Your task to perform on an android device: Search for the best rated Bluetooth earbuds on Ali express Image 0: 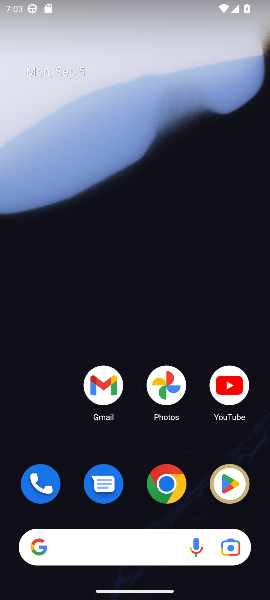
Step 0: drag from (61, 520) to (173, 94)
Your task to perform on an android device: Search for the best rated Bluetooth earbuds on Ali express Image 1: 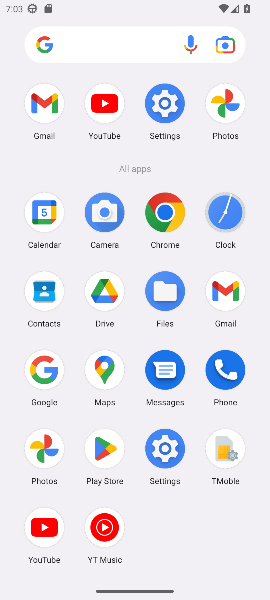
Step 1: click (164, 200)
Your task to perform on an android device: Search for the best rated Bluetooth earbuds on Ali express Image 2: 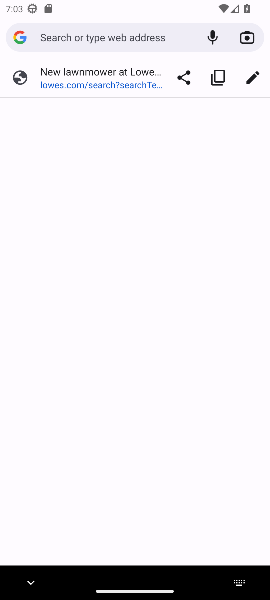
Step 2: type " Ali express"
Your task to perform on an android device: Search for the best rated Bluetooth earbuds on Ali express Image 3: 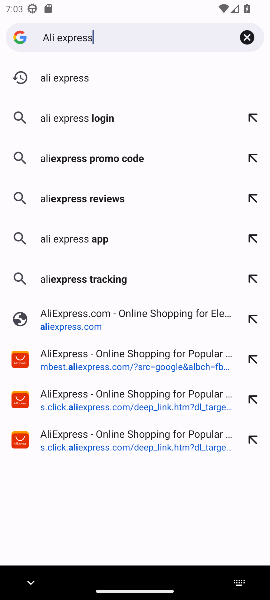
Step 3: press enter
Your task to perform on an android device: Search for the best rated Bluetooth earbuds on Ali express Image 4: 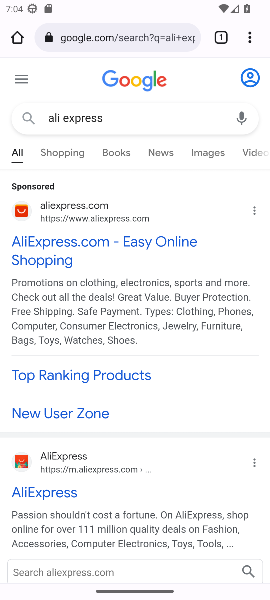
Step 4: click (54, 247)
Your task to perform on an android device: Search for the best rated Bluetooth earbuds on Ali express Image 5: 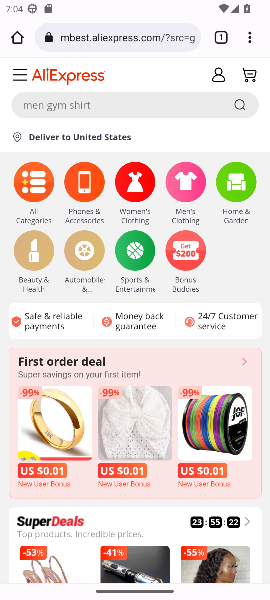
Step 5: click (44, 102)
Your task to perform on an android device: Search for the best rated Bluetooth earbuds on Ali express Image 6: 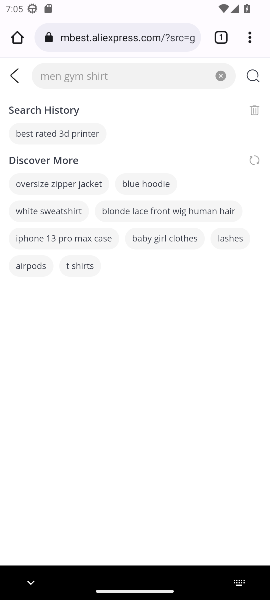
Step 6: press enter
Your task to perform on an android device: Search for the best rated Bluetooth earbuds on Ali express Image 7: 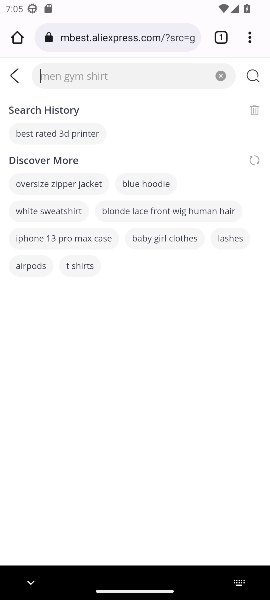
Step 7: type "best rated Bluetooth earbuds "
Your task to perform on an android device: Search for the best rated Bluetooth earbuds on Ali express Image 8: 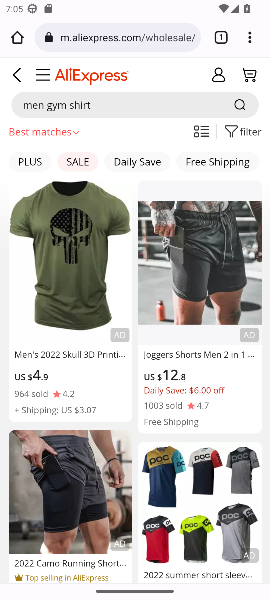
Step 8: click (128, 107)
Your task to perform on an android device: Search for the best rated Bluetooth earbuds on Ali express Image 9: 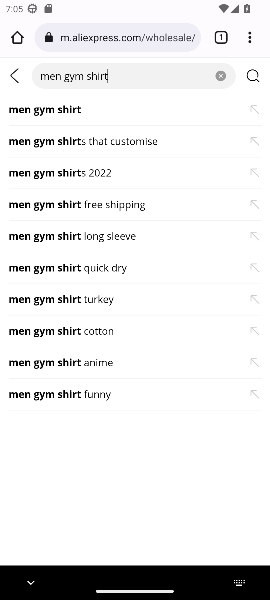
Step 9: click (222, 79)
Your task to perform on an android device: Search for the best rated Bluetooth earbuds on Ali express Image 10: 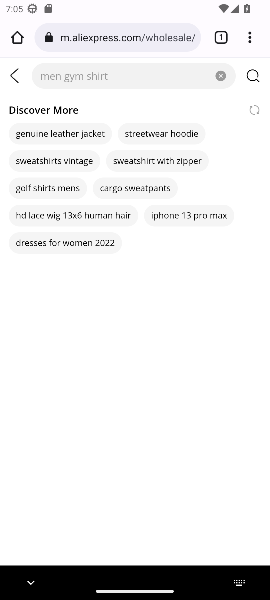
Step 10: type "best rated Bluetooth earbuds"
Your task to perform on an android device: Search for the best rated Bluetooth earbuds on Ali express Image 11: 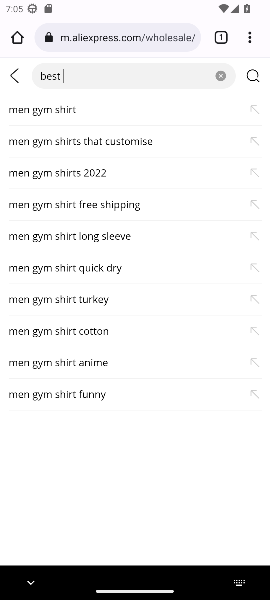
Step 11: press enter
Your task to perform on an android device: Search for the best rated Bluetooth earbuds on Ali express Image 12: 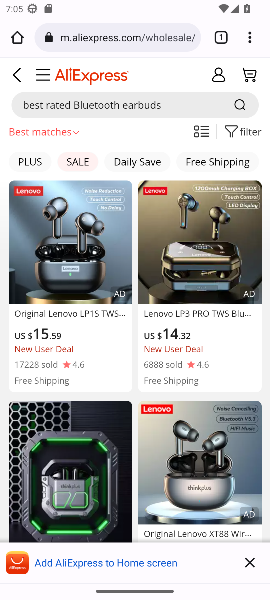
Step 12: task complete